Your task to perform on an android device: Go to network settings Image 0: 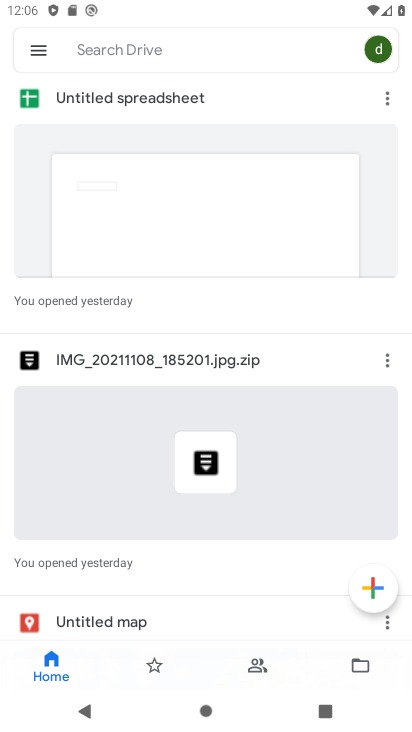
Step 0: press home button
Your task to perform on an android device: Go to network settings Image 1: 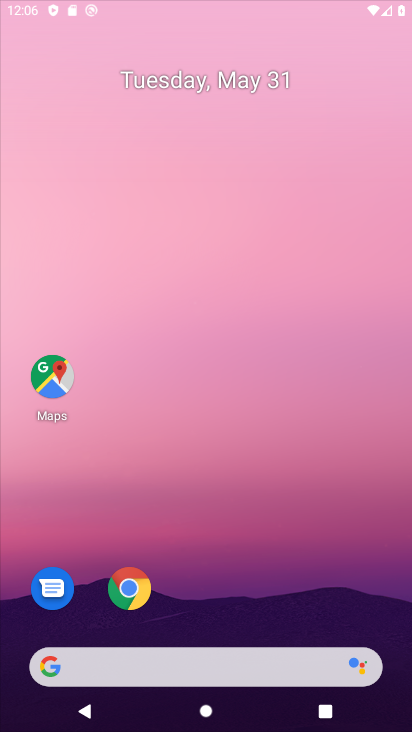
Step 1: drag from (158, 721) to (169, 64)
Your task to perform on an android device: Go to network settings Image 2: 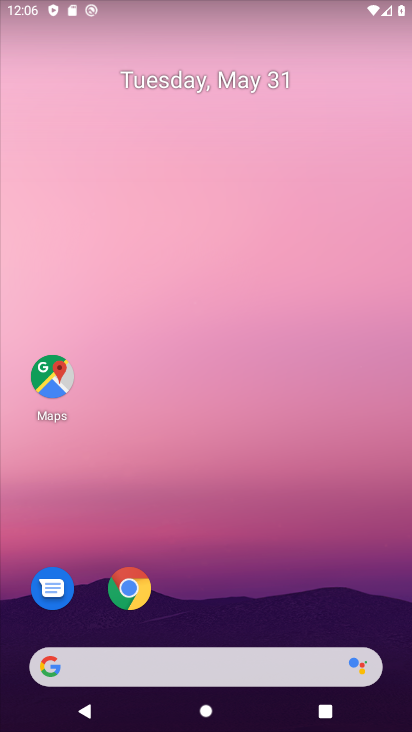
Step 2: drag from (128, 726) to (121, 25)
Your task to perform on an android device: Go to network settings Image 3: 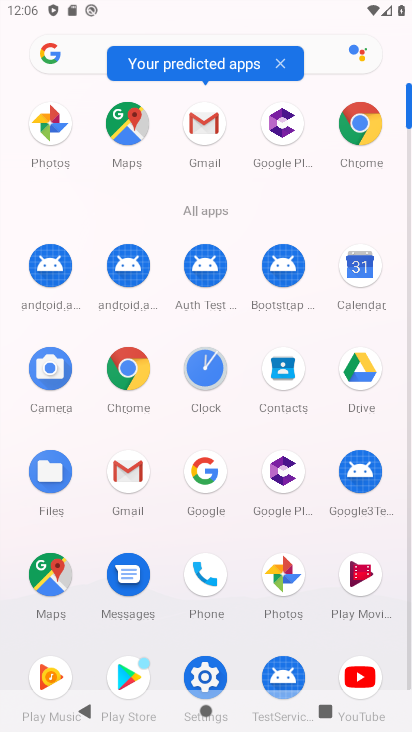
Step 3: click (207, 681)
Your task to perform on an android device: Go to network settings Image 4: 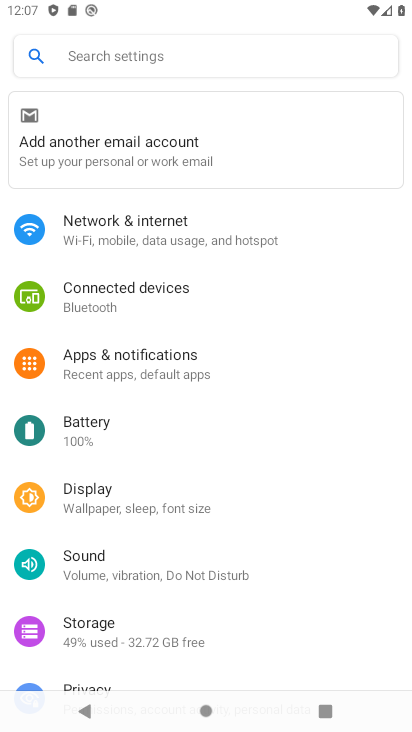
Step 4: click (146, 239)
Your task to perform on an android device: Go to network settings Image 5: 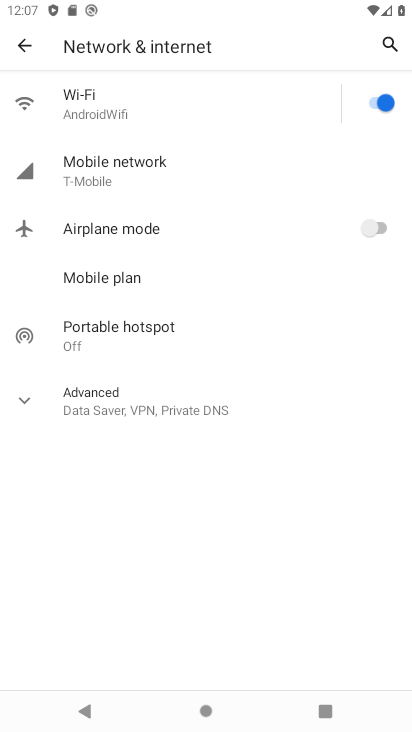
Step 5: click (149, 172)
Your task to perform on an android device: Go to network settings Image 6: 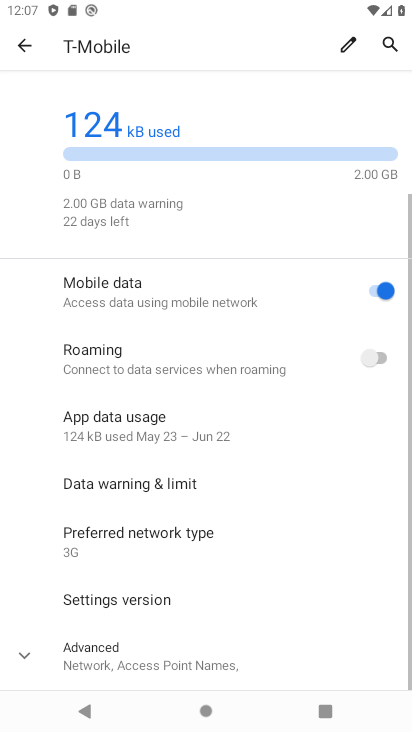
Step 6: drag from (175, 619) to (143, 197)
Your task to perform on an android device: Go to network settings Image 7: 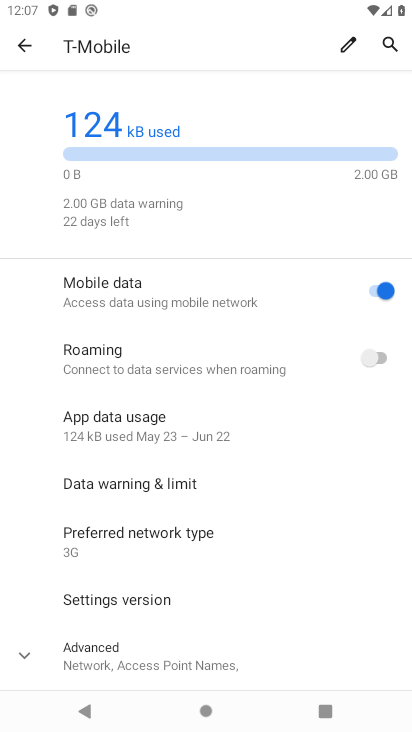
Step 7: click (132, 671)
Your task to perform on an android device: Go to network settings Image 8: 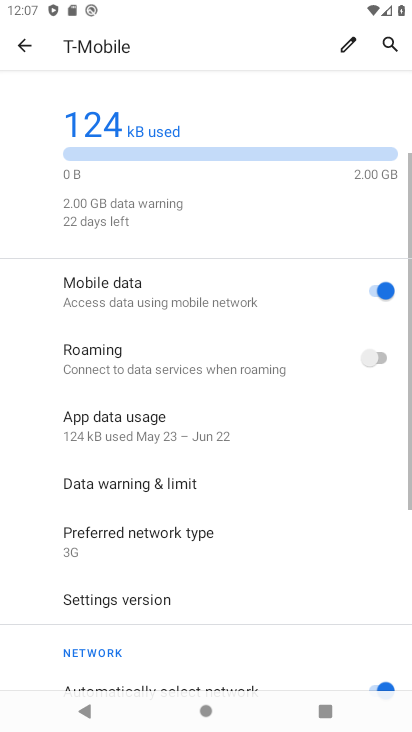
Step 8: task complete